Your task to perform on an android device: Show me popular videos on Youtube Image 0: 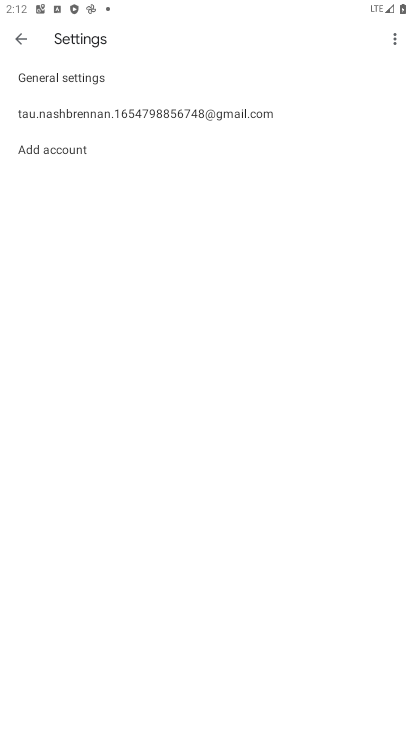
Step 0: press home button
Your task to perform on an android device: Show me popular videos on Youtube Image 1: 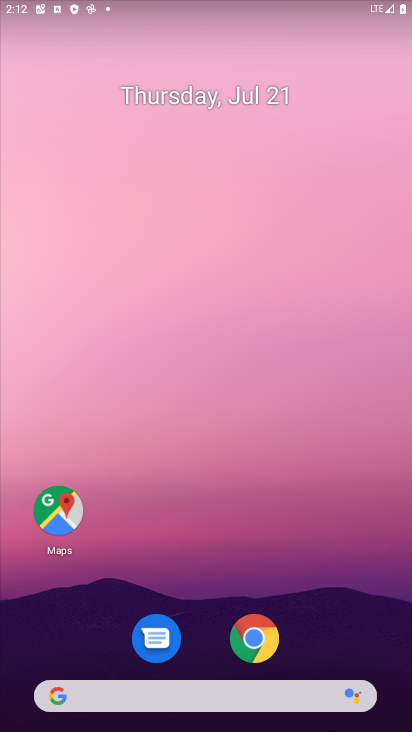
Step 1: drag from (302, 727) to (223, 223)
Your task to perform on an android device: Show me popular videos on Youtube Image 2: 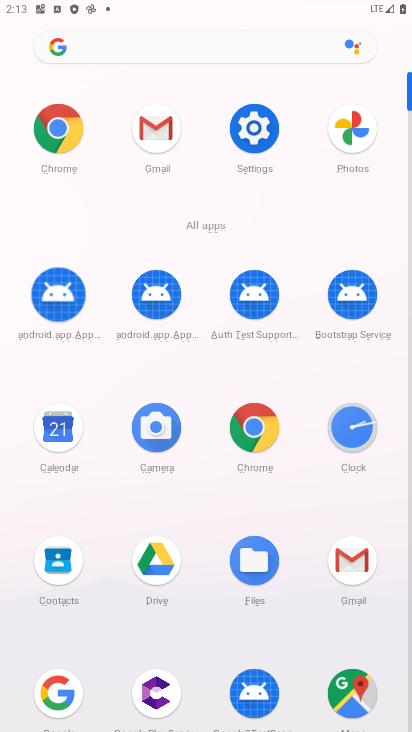
Step 2: drag from (225, 633) to (204, 223)
Your task to perform on an android device: Show me popular videos on Youtube Image 3: 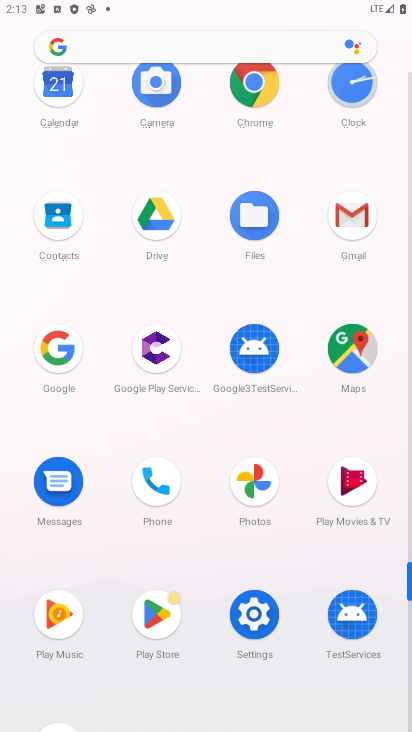
Step 3: drag from (264, 645) to (213, 25)
Your task to perform on an android device: Show me popular videos on Youtube Image 4: 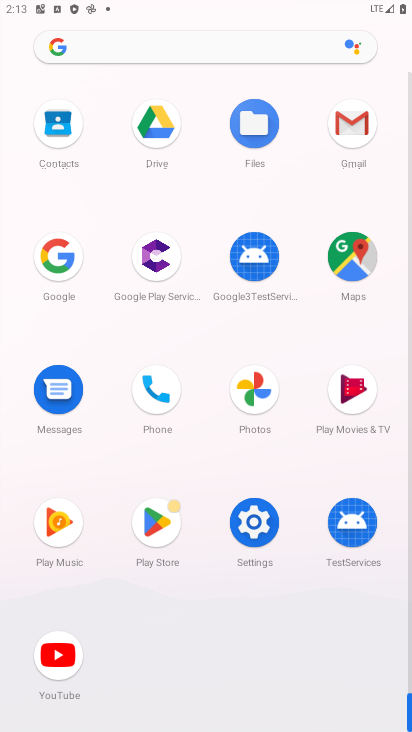
Step 4: click (52, 660)
Your task to perform on an android device: Show me popular videos on Youtube Image 5: 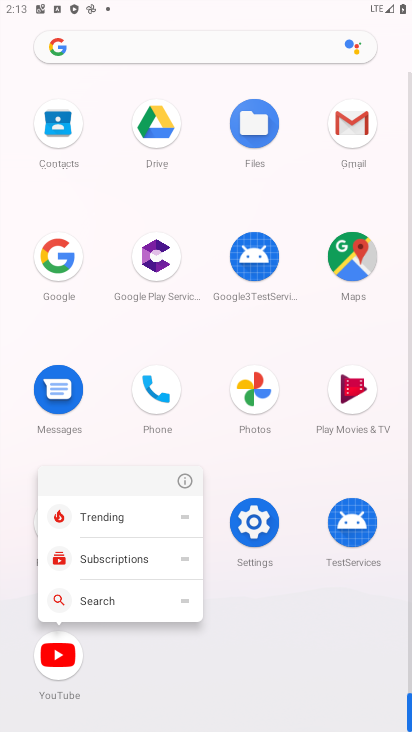
Step 5: click (55, 657)
Your task to perform on an android device: Show me popular videos on Youtube Image 6: 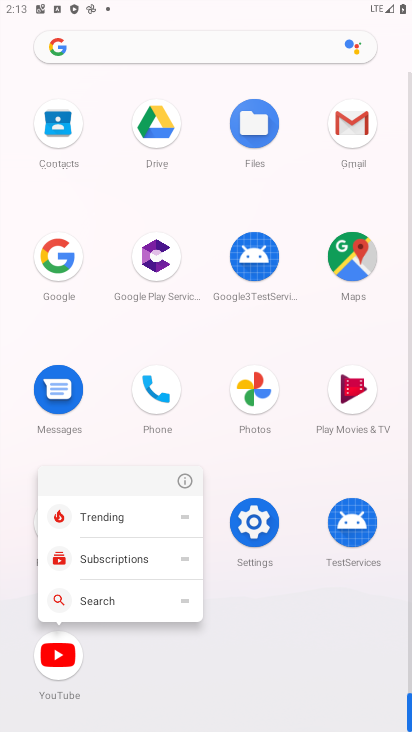
Step 6: click (55, 657)
Your task to perform on an android device: Show me popular videos on Youtube Image 7: 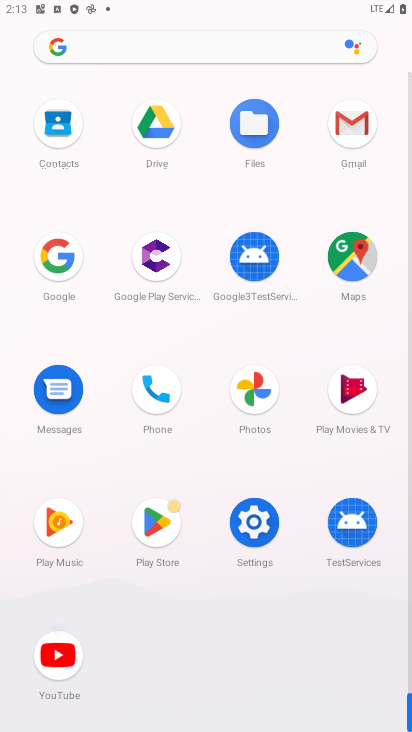
Step 7: click (55, 657)
Your task to perform on an android device: Show me popular videos on Youtube Image 8: 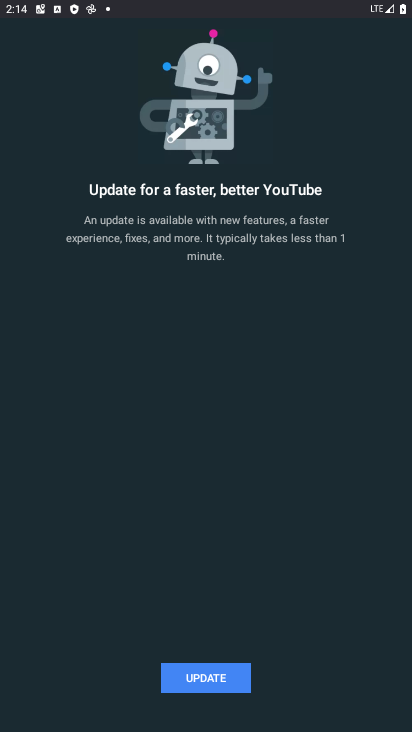
Step 8: click (221, 694)
Your task to perform on an android device: Show me popular videos on Youtube Image 9: 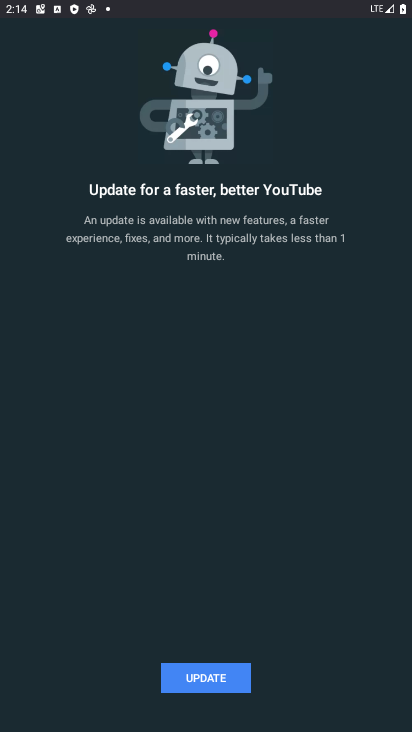
Step 9: click (214, 678)
Your task to perform on an android device: Show me popular videos on Youtube Image 10: 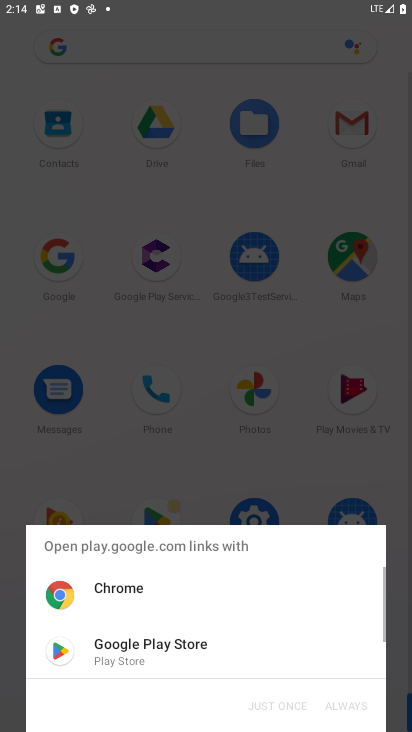
Step 10: click (147, 661)
Your task to perform on an android device: Show me popular videos on Youtube Image 11: 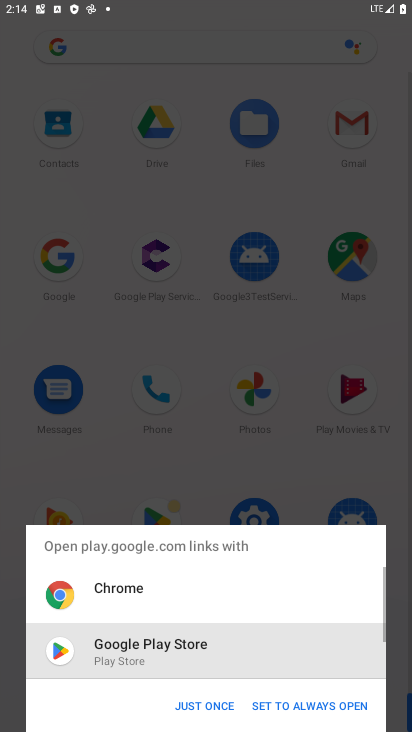
Step 11: click (194, 708)
Your task to perform on an android device: Show me popular videos on Youtube Image 12: 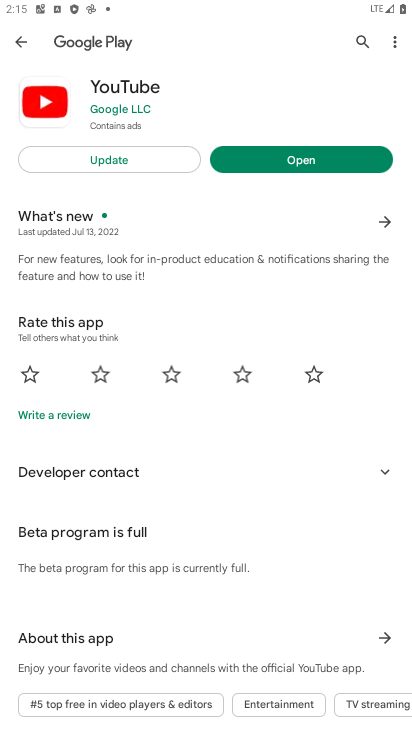
Step 12: click (62, 154)
Your task to perform on an android device: Show me popular videos on Youtube Image 13: 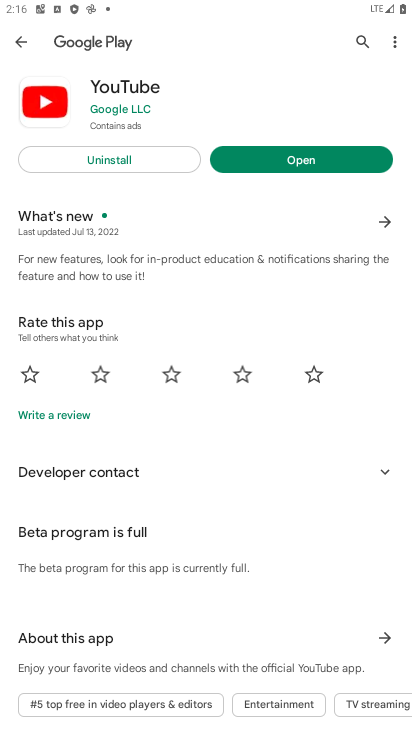
Step 13: click (359, 163)
Your task to perform on an android device: Show me popular videos on Youtube Image 14: 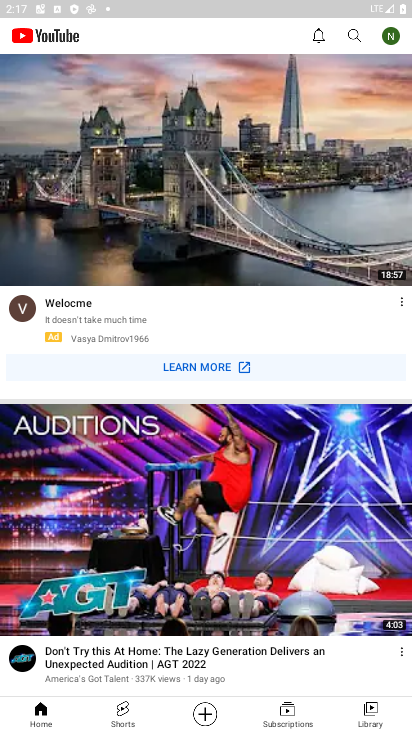
Step 14: task complete